Your task to perform on an android device: snooze an email in the gmail app Image 0: 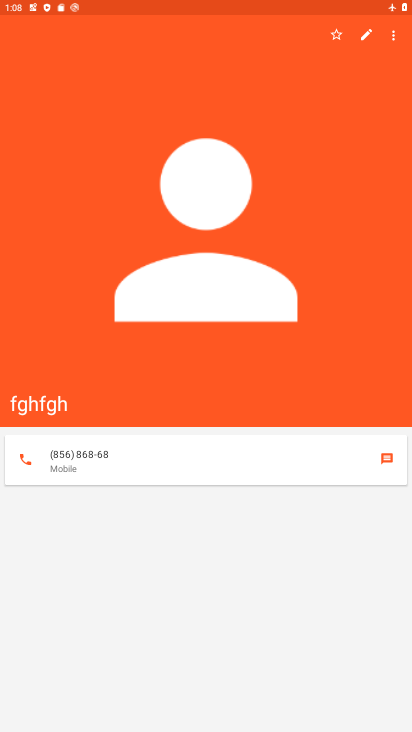
Step 0: press home button
Your task to perform on an android device: snooze an email in the gmail app Image 1: 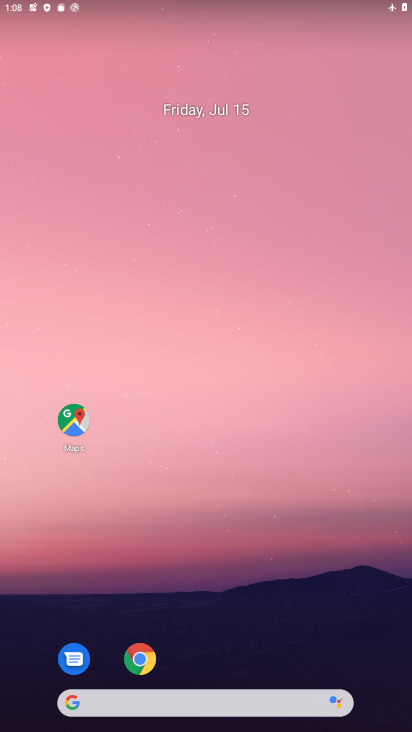
Step 1: drag from (207, 648) to (192, 241)
Your task to perform on an android device: snooze an email in the gmail app Image 2: 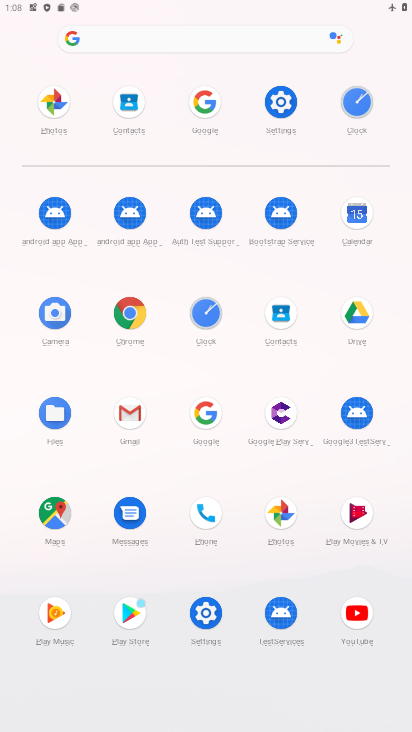
Step 2: click (141, 420)
Your task to perform on an android device: snooze an email in the gmail app Image 3: 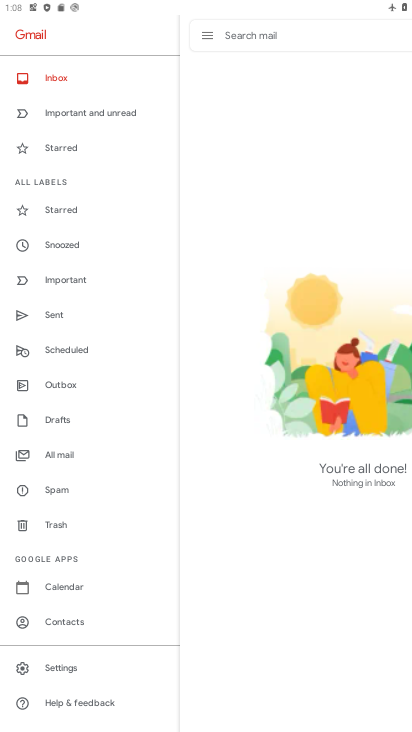
Step 3: task complete